Your task to perform on an android device: View the shopping cart on target. Image 0: 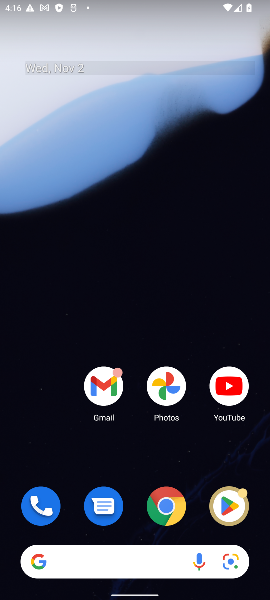
Step 0: click (171, 515)
Your task to perform on an android device: View the shopping cart on target. Image 1: 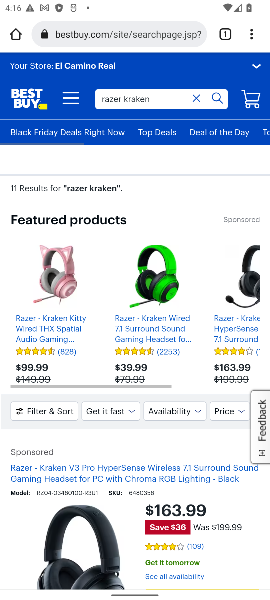
Step 1: click (153, 41)
Your task to perform on an android device: View the shopping cart on target. Image 2: 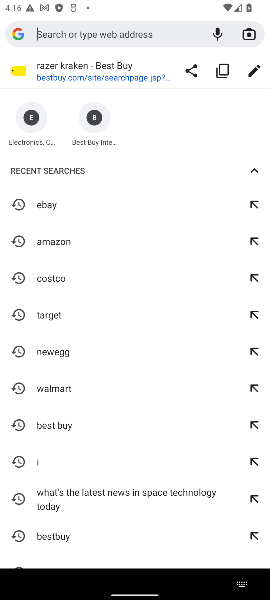
Step 2: type "target"
Your task to perform on an android device: View the shopping cart on target. Image 3: 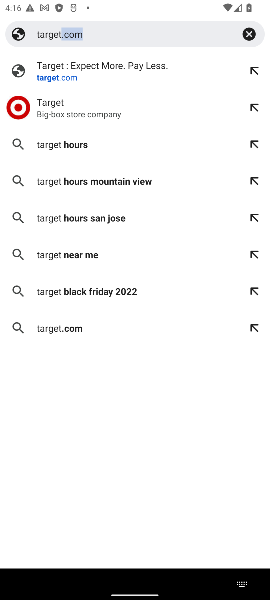
Step 3: press enter
Your task to perform on an android device: View the shopping cart on target. Image 4: 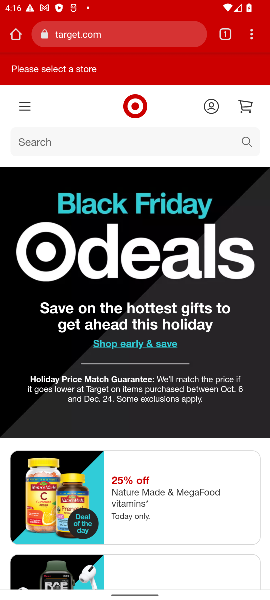
Step 4: click (240, 108)
Your task to perform on an android device: View the shopping cart on target. Image 5: 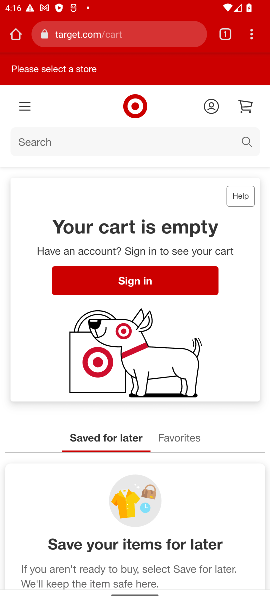
Step 5: task complete